Your task to perform on an android device: toggle sleep mode Image 0: 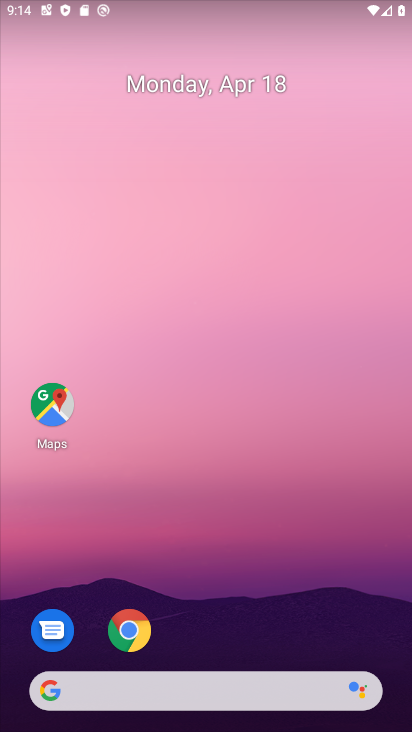
Step 0: drag from (308, 560) to (292, 108)
Your task to perform on an android device: toggle sleep mode Image 1: 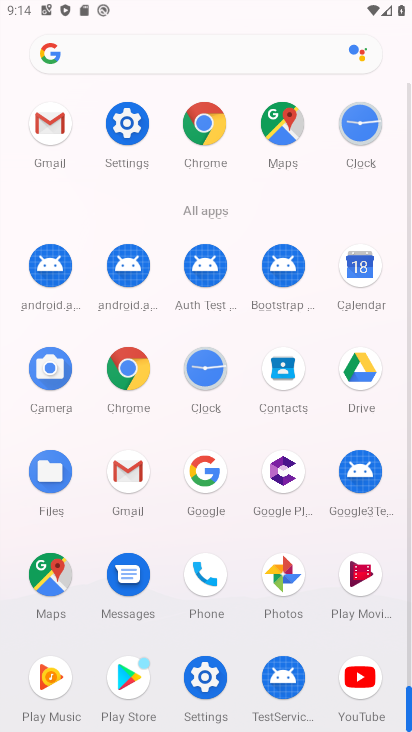
Step 1: click (127, 117)
Your task to perform on an android device: toggle sleep mode Image 2: 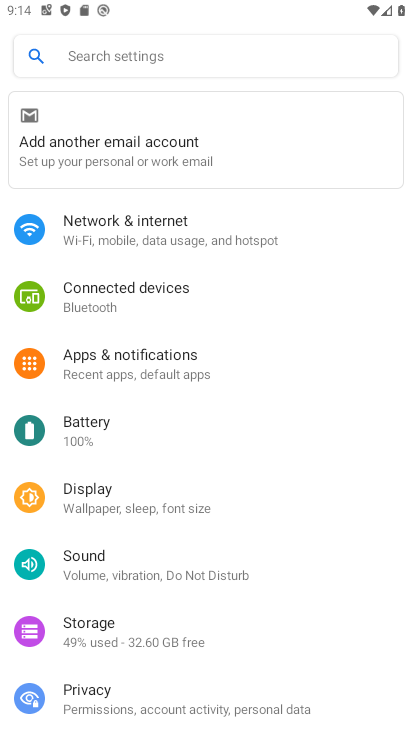
Step 2: click (186, 500)
Your task to perform on an android device: toggle sleep mode Image 3: 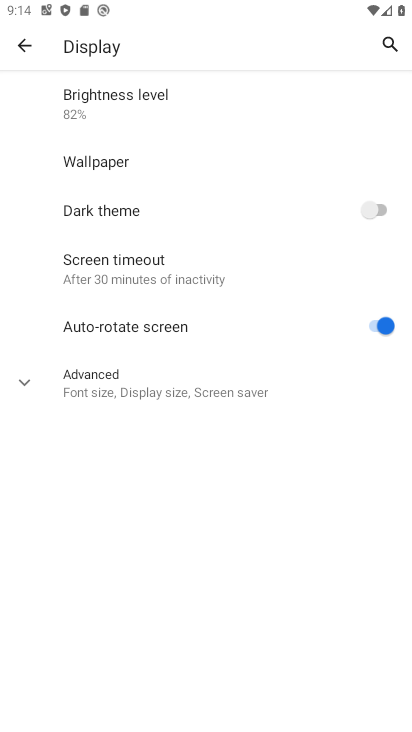
Step 3: click (20, 380)
Your task to perform on an android device: toggle sleep mode Image 4: 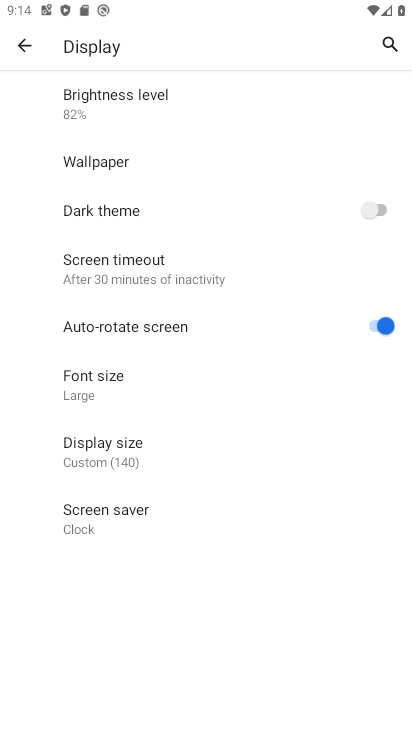
Step 4: task complete